Your task to perform on an android device: Set the phone to "Do not disturb". Image 0: 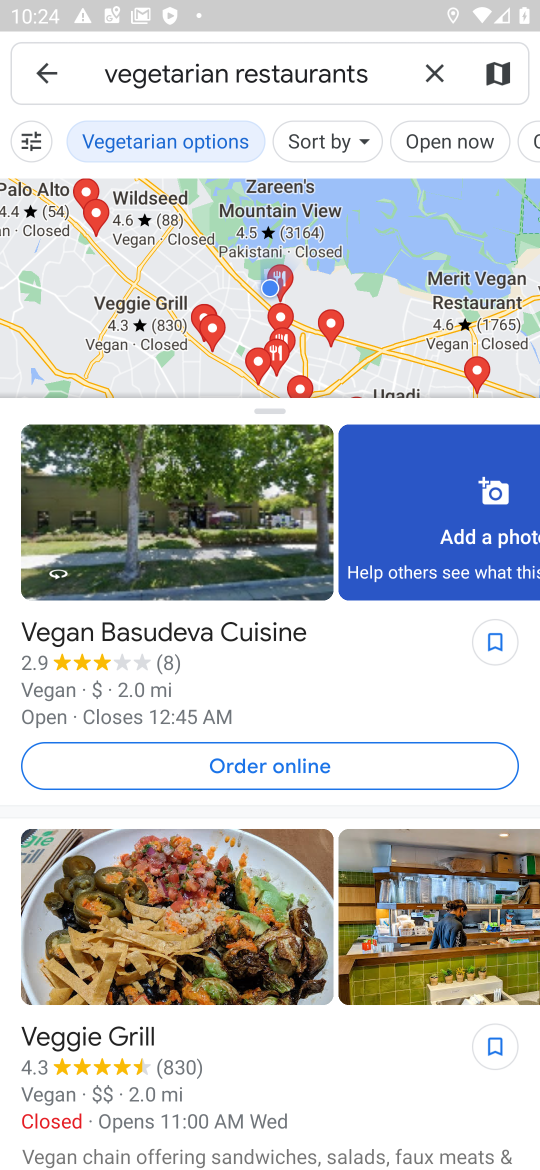
Step 0: press home button
Your task to perform on an android device: Set the phone to "Do not disturb". Image 1: 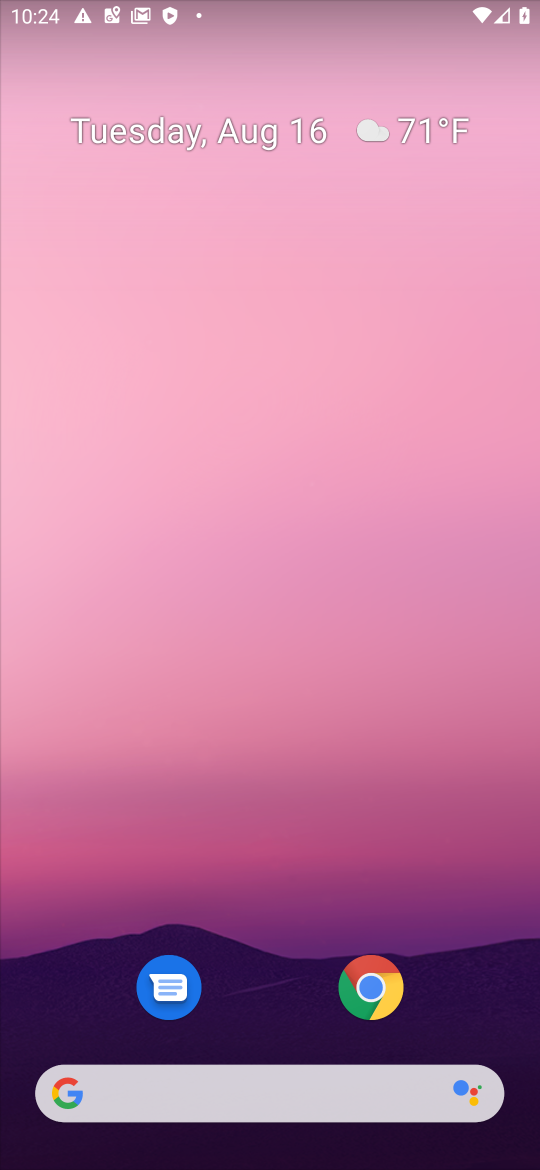
Step 1: drag from (32, 1104) to (297, 490)
Your task to perform on an android device: Set the phone to "Do not disturb". Image 2: 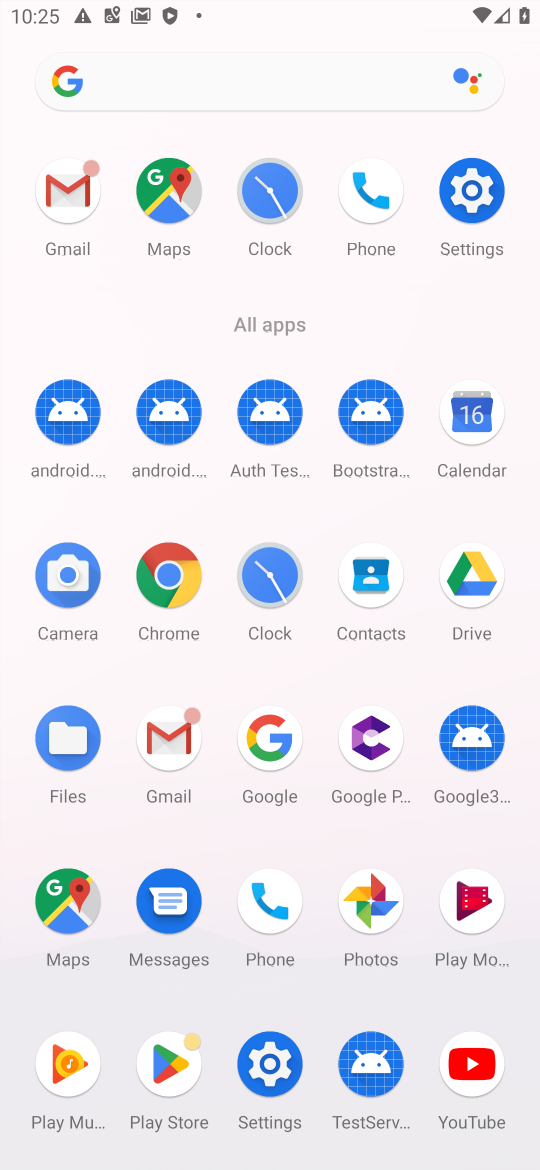
Step 2: click (259, 1065)
Your task to perform on an android device: Set the phone to "Do not disturb". Image 3: 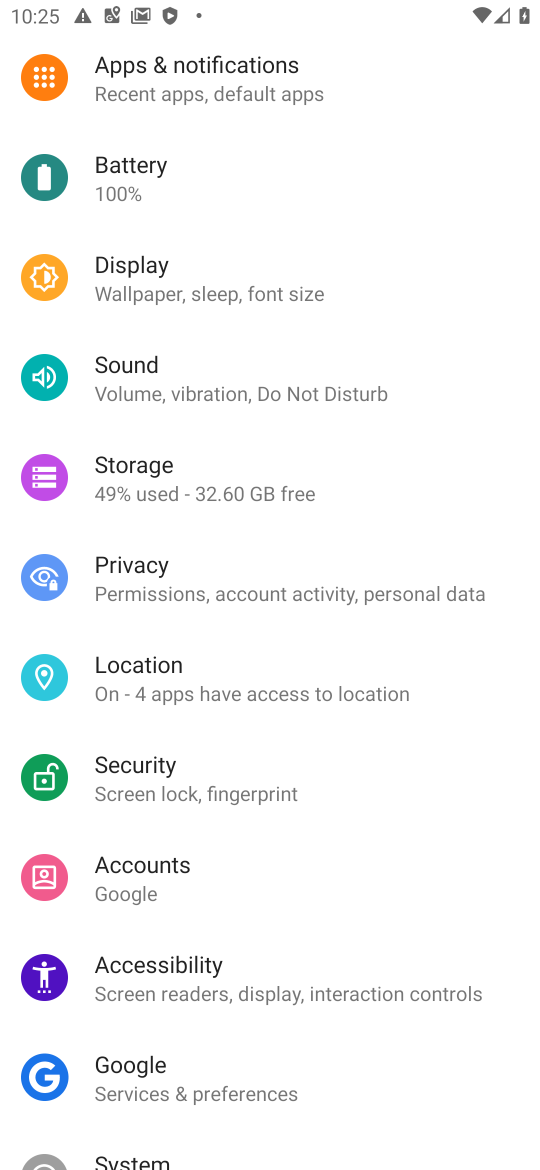
Step 3: click (164, 384)
Your task to perform on an android device: Set the phone to "Do not disturb". Image 4: 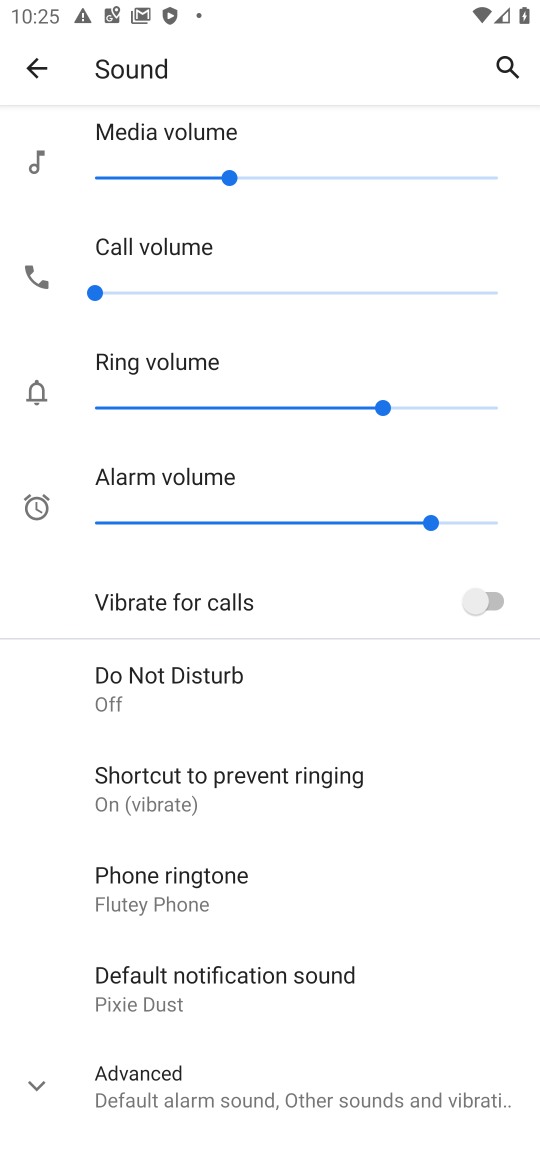
Step 4: click (165, 673)
Your task to perform on an android device: Set the phone to "Do not disturb". Image 5: 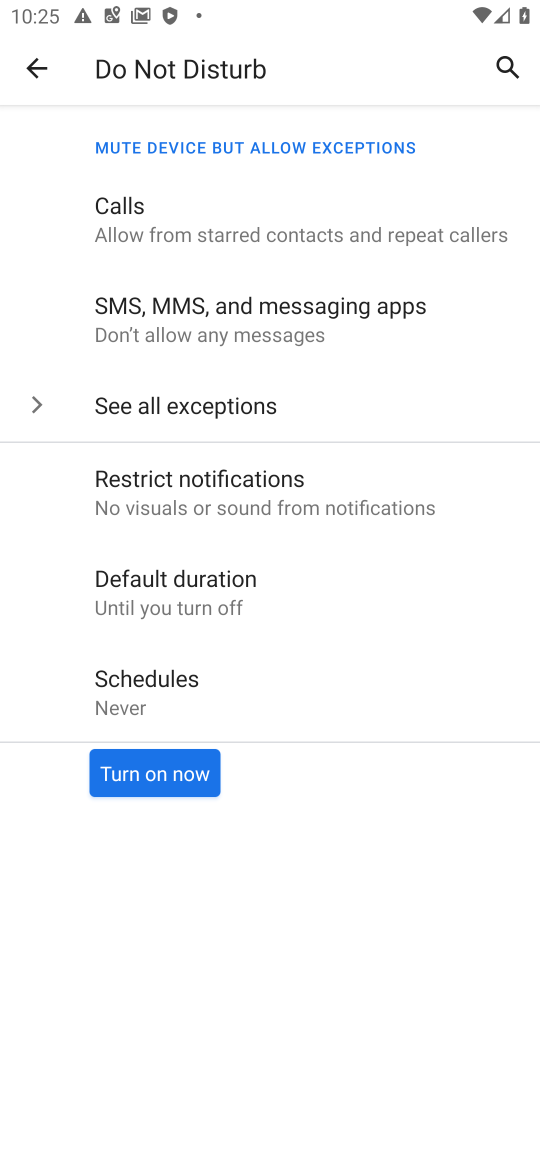
Step 5: click (108, 778)
Your task to perform on an android device: Set the phone to "Do not disturb". Image 6: 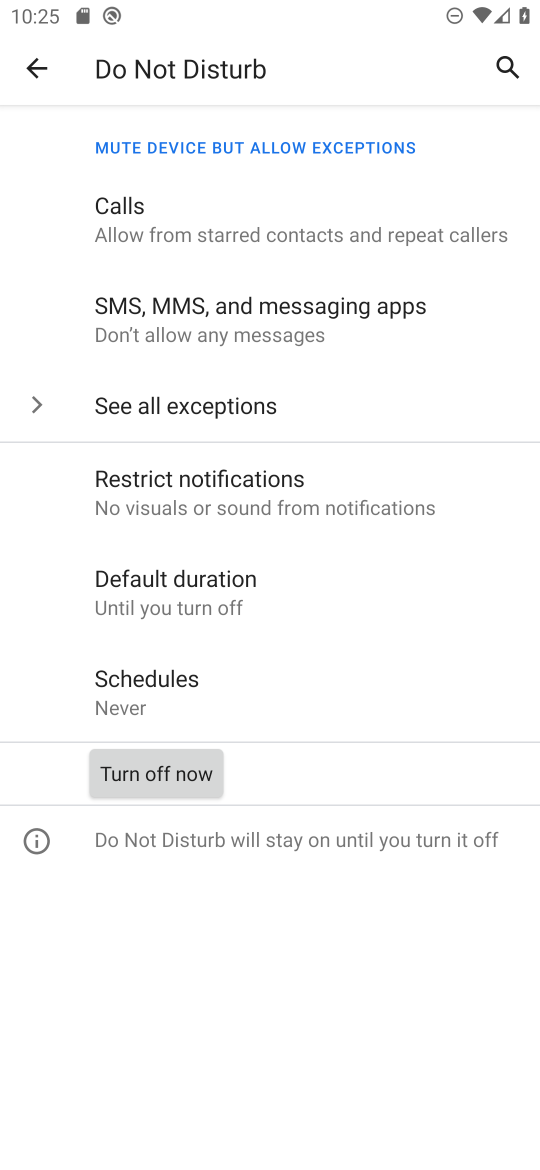
Step 6: task complete